Your task to perform on an android device: Open ESPN.com Image 0: 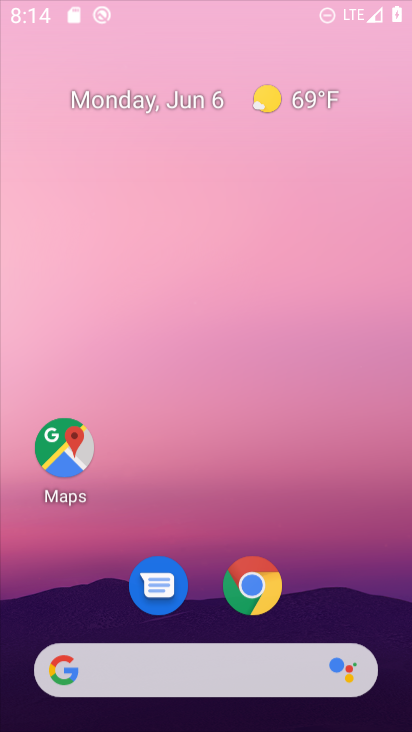
Step 0: press home button
Your task to perform on an android device: Open ESPN.com Image 1: 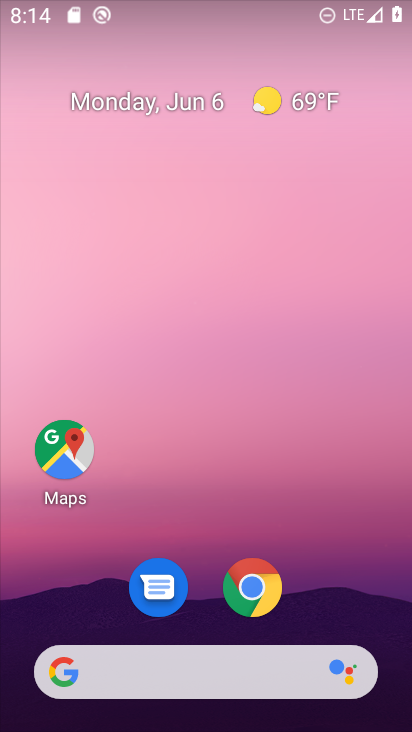
Step 1: click (238, 603)
Your task to perform on an android device: Open ESPN.com Image 2: 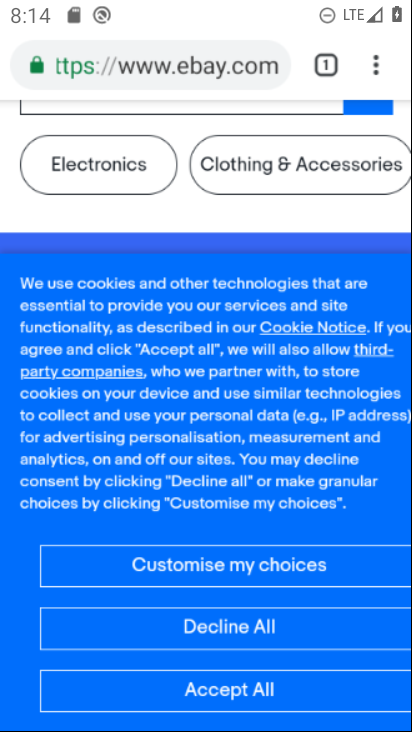
Step 2: click (218, 49)
Your task to perform on an android device: Open ESPN.com Image 3: 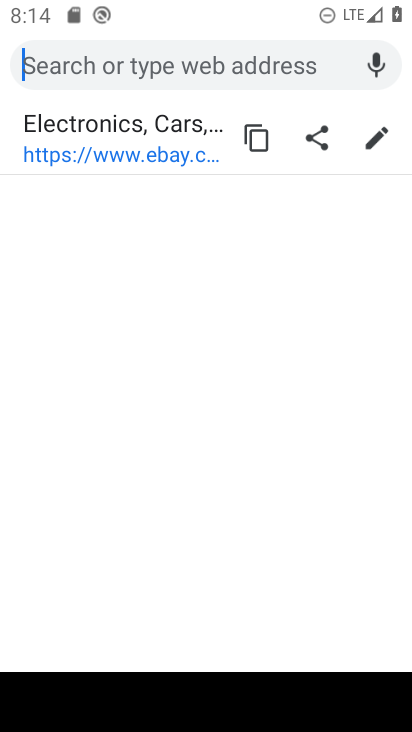
Step 3: type "espn.com"
Your task to perform on an android device: Open ESPN.com Image 4: 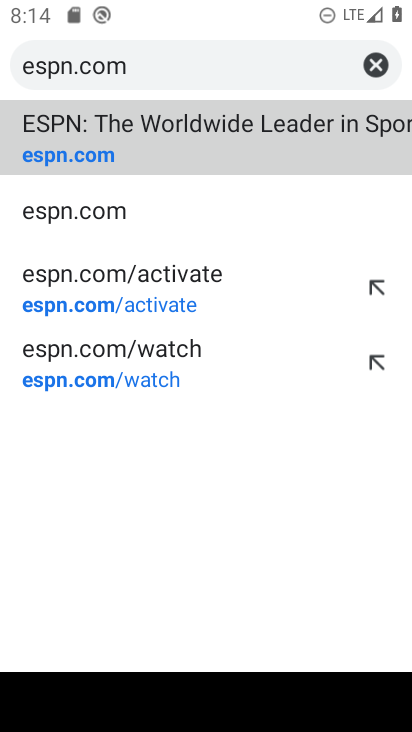
Step 4: click (105, 164)
Your task to perform on an android device: Open ESPN.com Image 5: 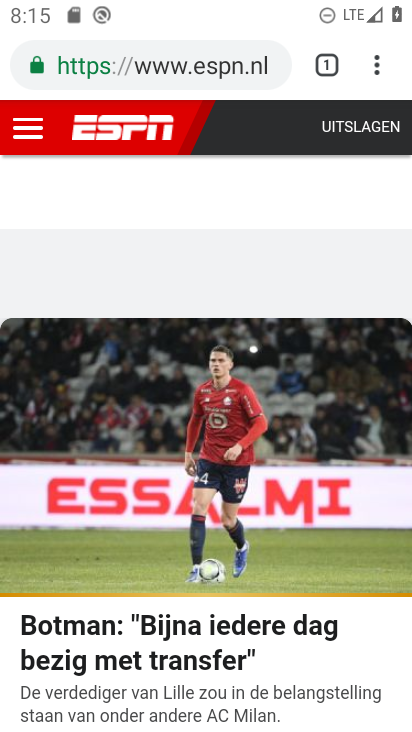
Step 5: task complete